Your task to perform on an android device: Turn on the flashlight Image 0: 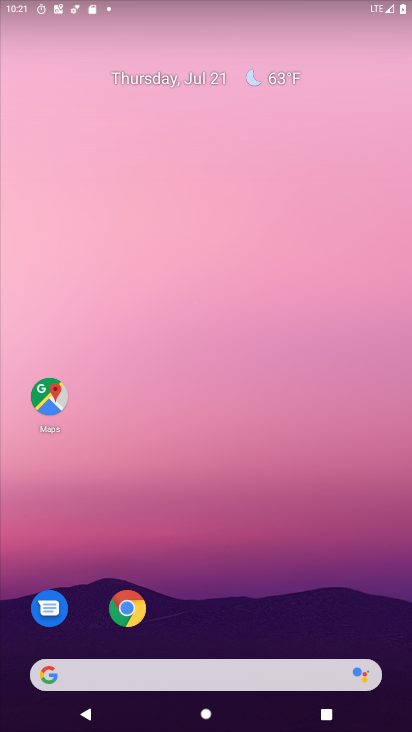
Step 0: drag from (199, 463) to (226, 211)
Your task to perform on an android device: Turn on the flashlight Image 1: 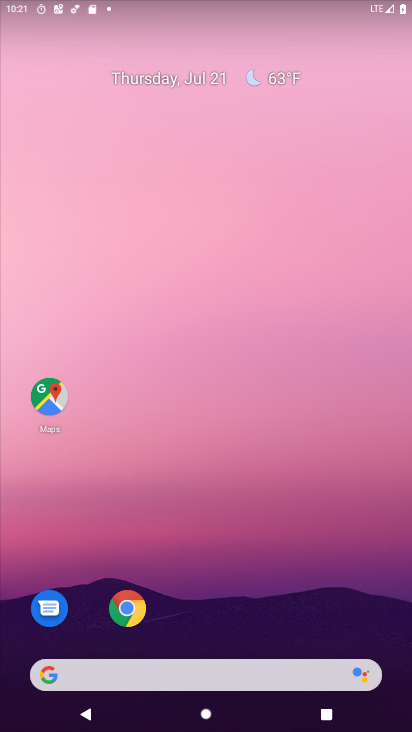
Step 1: task complete